Your task to perform on an android device: Show me recent news Image 0: 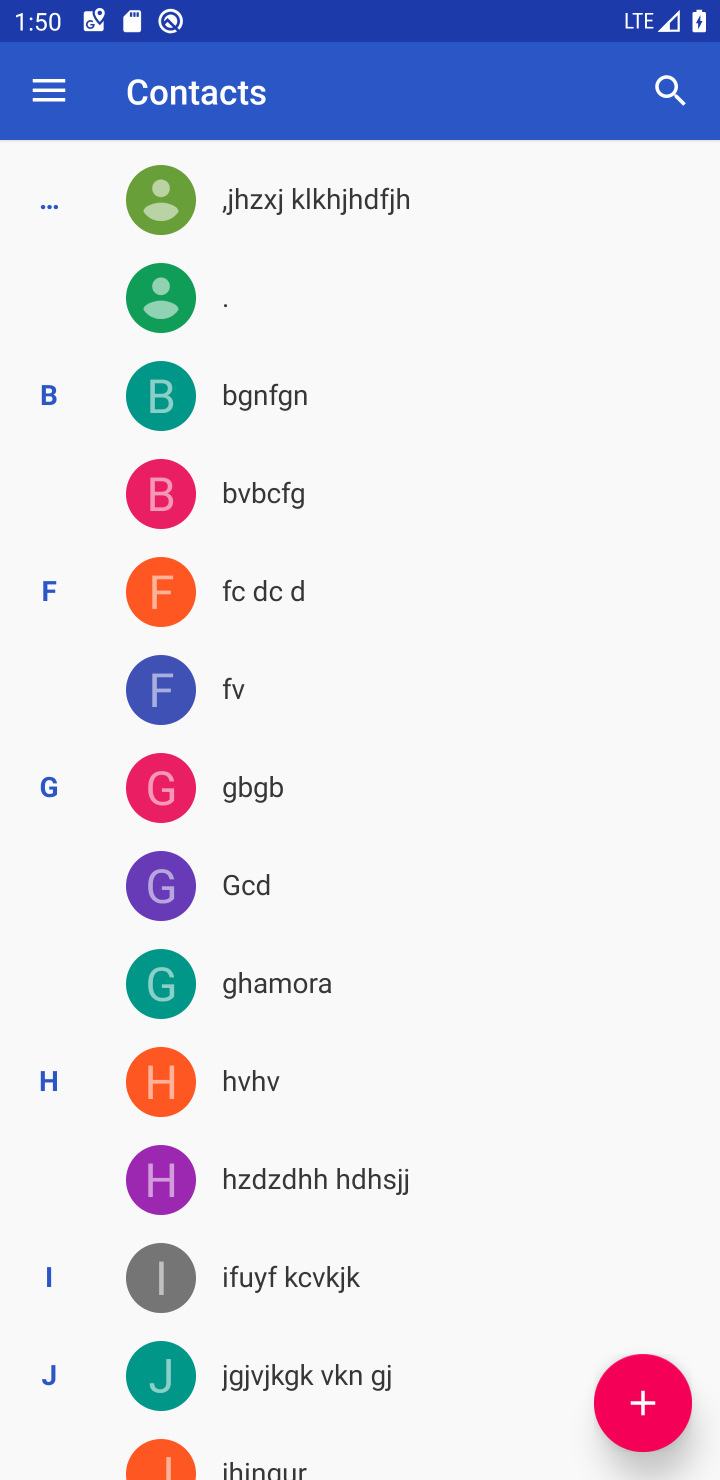
Step 0: press home button
Your task to perform on an android device: Show me recent news Image 1: 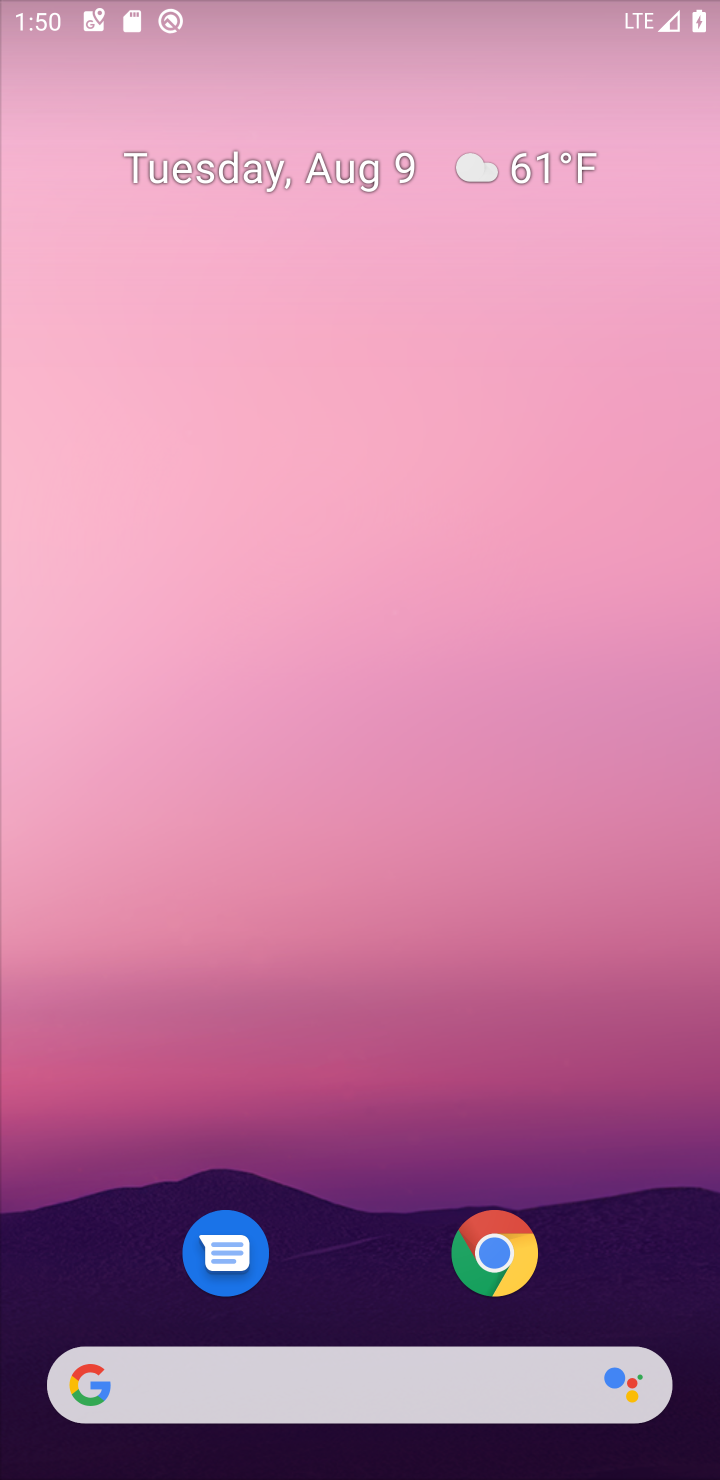
Step 1: drag from (581, 852) to (382, 141)
Your task to perform on an android device: Show me recent news Image 2: 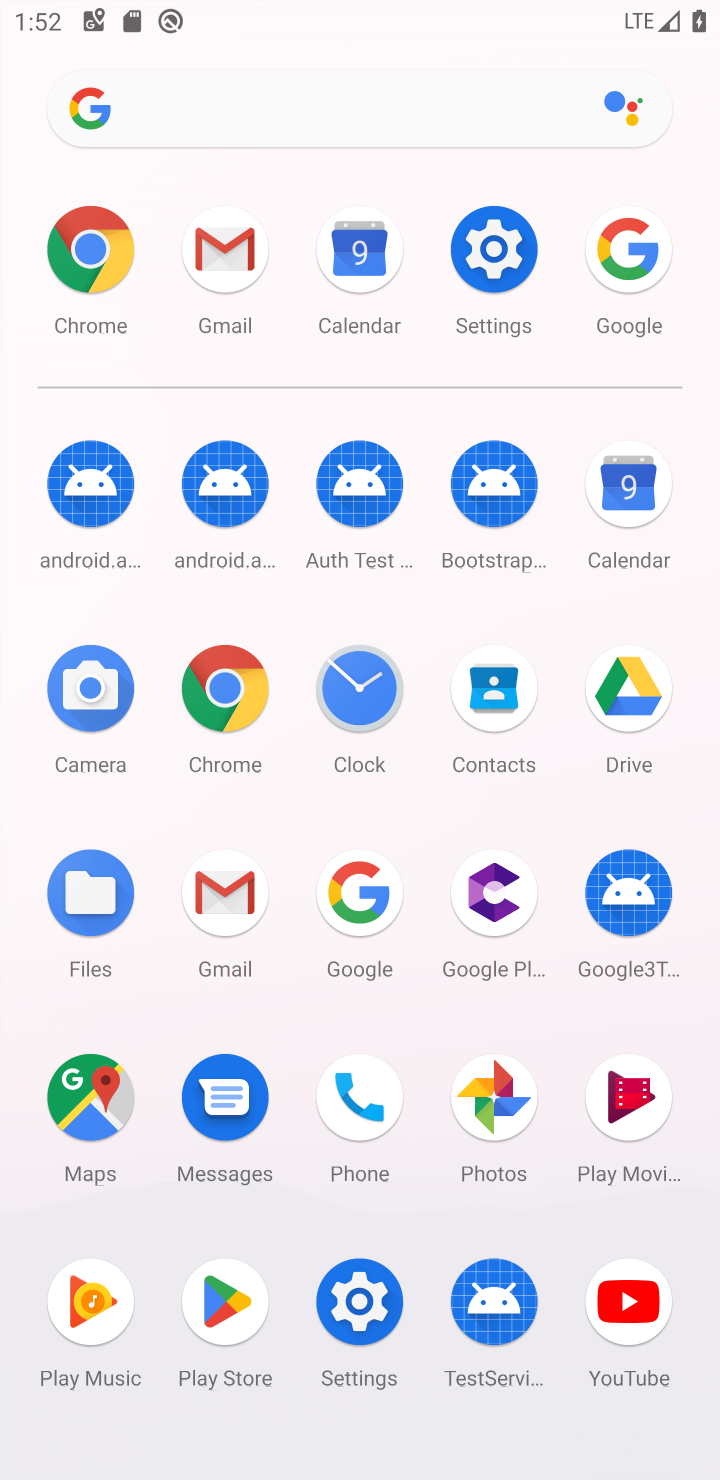
Step 2: click (356, 897)
Your task to perform on an android device: Show me recent news Image 3: 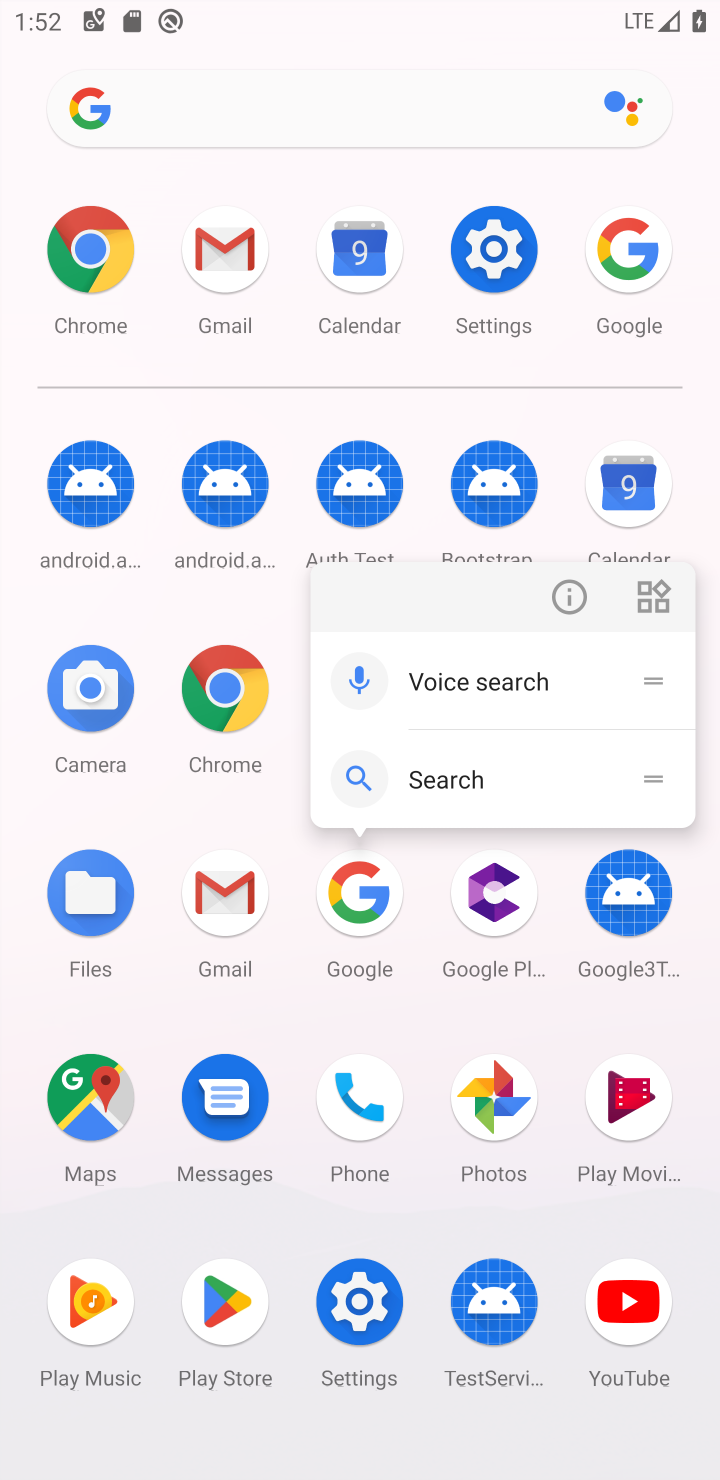
Step 3: click (335, 902)
Your task to perform on an android device: Show me recent news Image 4: 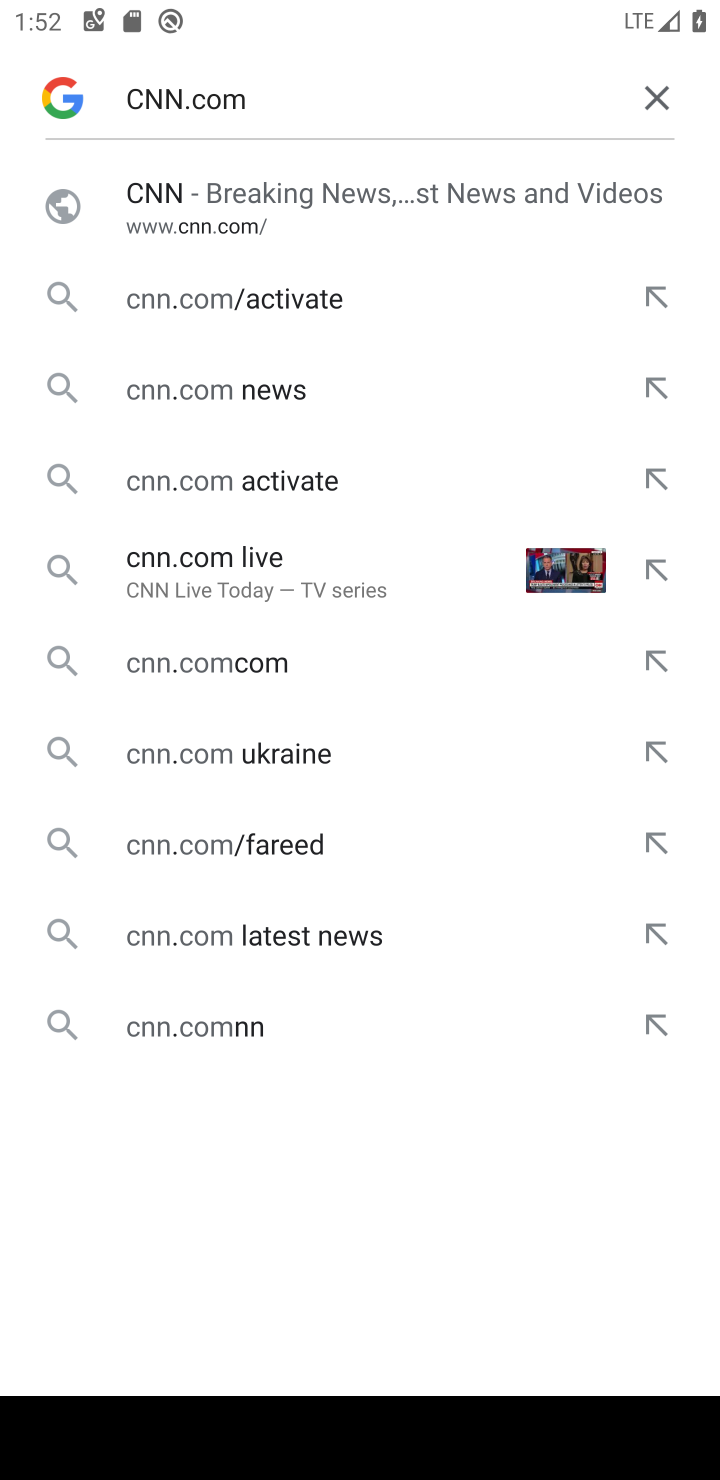
Step 4: task complete